Your task to perform on an android device: Show me the alarms in the clock app Image 0: 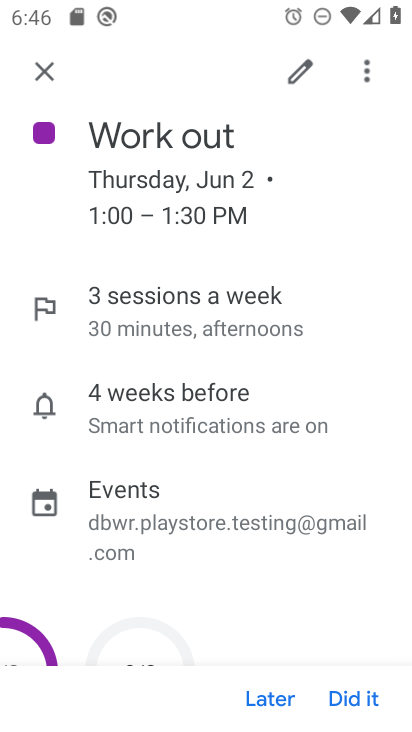
Step 0: press home button
Your task to perform on an android device: Show me the alarms in the clock app Image 1: 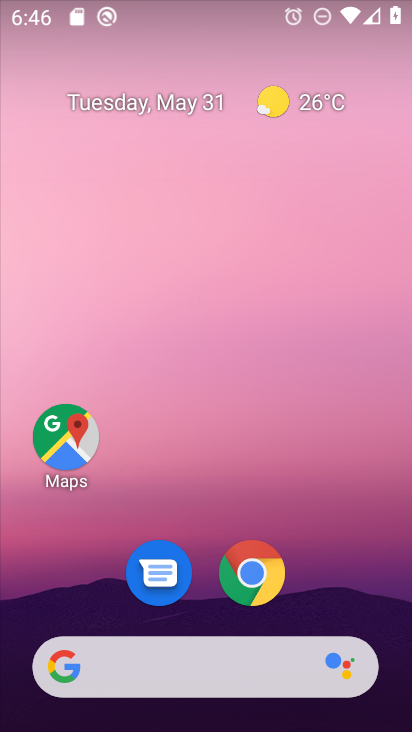
Step 1: drag from (401, 667) to (318, 67)
Your task to perform on an android device: Show me the alarms in the clock app Image 2: 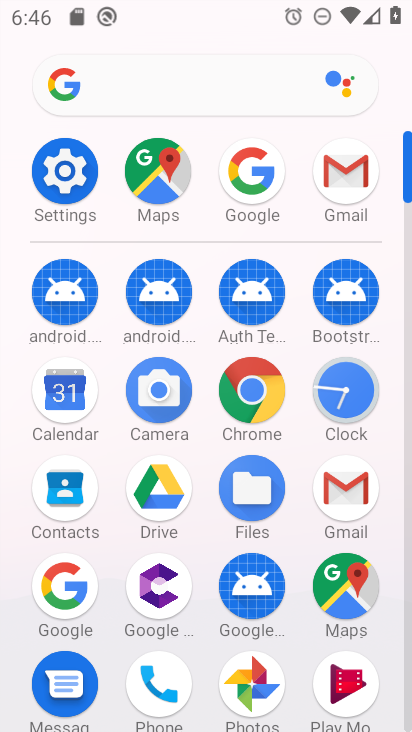
Step 2: click (342, 398)
Your task to perform on an android device: Show me the alarms in the clock app Image 3: 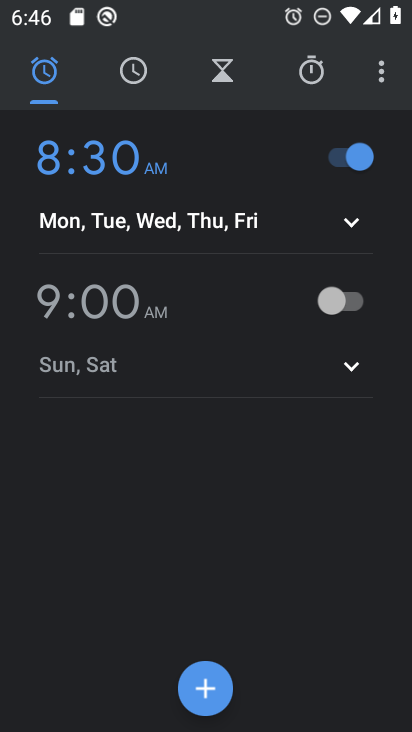
Step 3: task complete